Your task to perform on an android device: open app "HBO Max: Stream TV & Movies" (install if not already installed), go to login, and select forgot password Image 0: 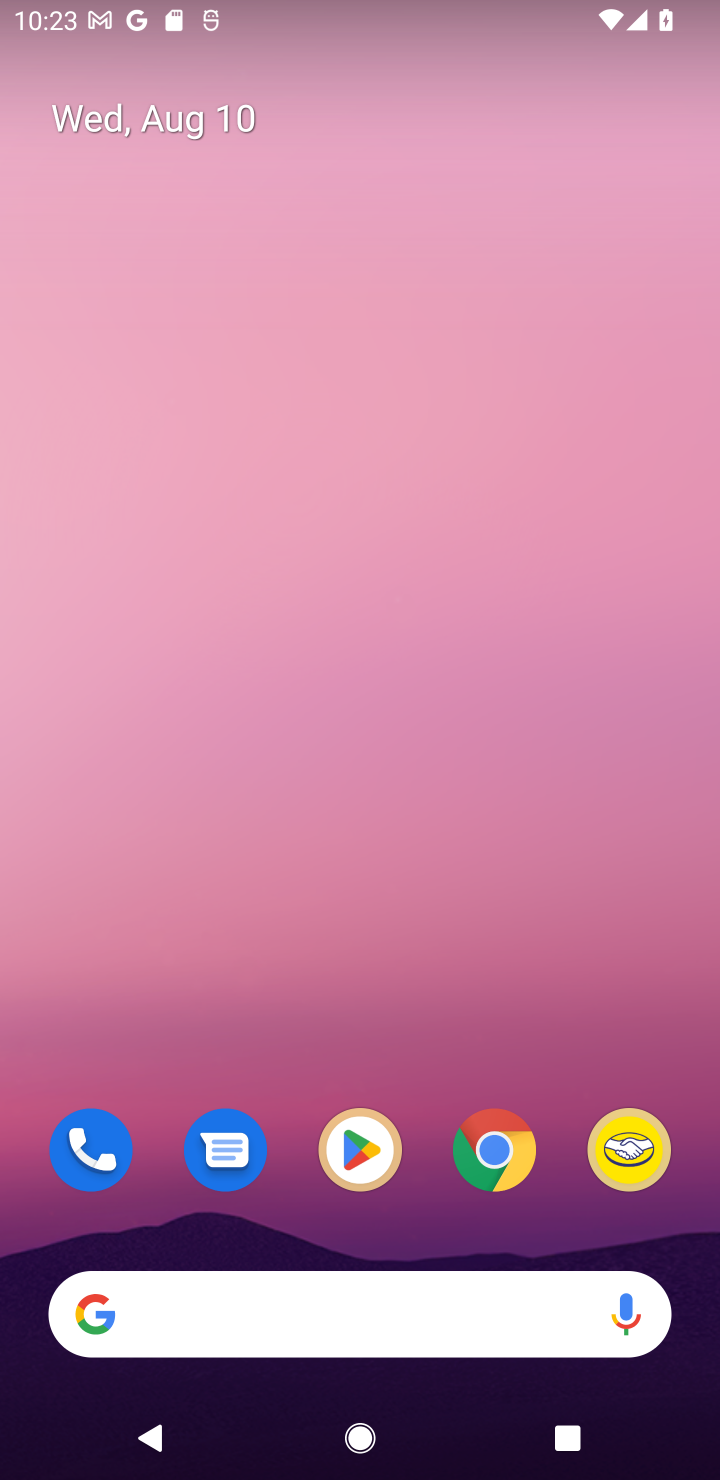
Step 0: click (366, 1136)
Your task to perform on an android device: open app "HBO Max: Stream TV & Movies" (install if not already installed), go to login, and select forgot password Image 1: 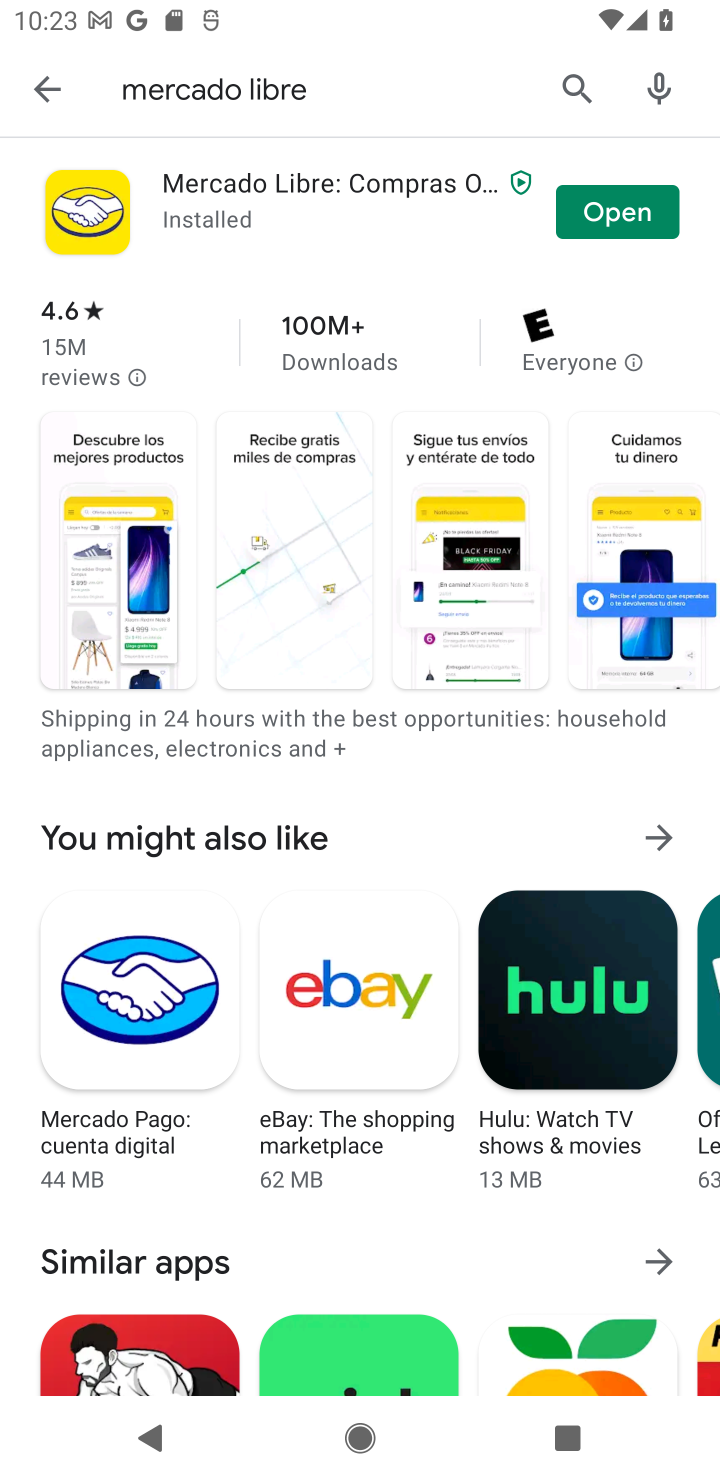
Step 1: click (570, 92)
Your task to perform on an android device: open app "HBO Max: Stream TV & Movies" (install if not already installed), go to login, and select forgot password Image 2: 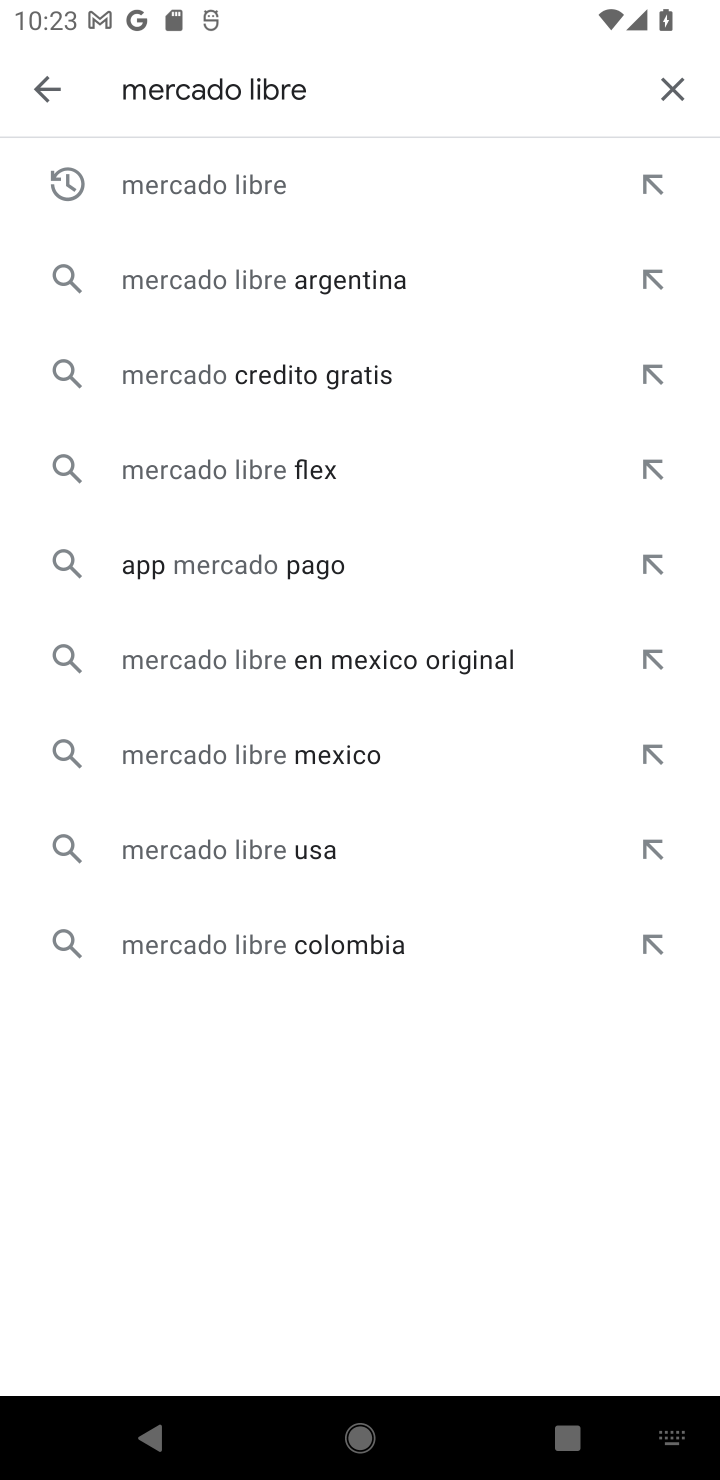
Step 2: click (664, 84)
Your task to perform on an android device: open app "HBO Max: Stream TV & Movies" (install if not already installed), go to login, and select forgot password Image 3: 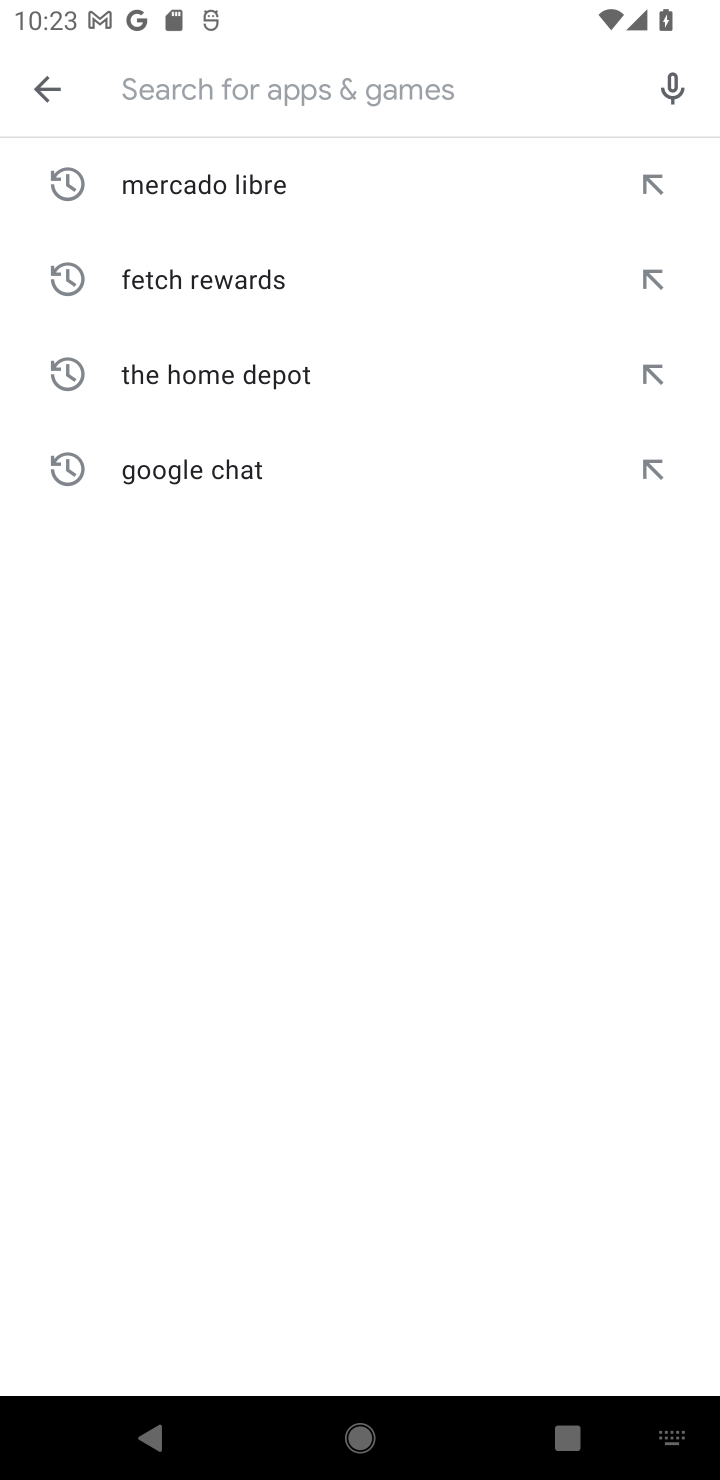
Step 3: type "HBO Max: Stream TV & Movies"
Your task to perform on an android device: open app "HBO Max: Stream TV & Movies" (install if not already installed), go to login, and select forgot password Image 4: 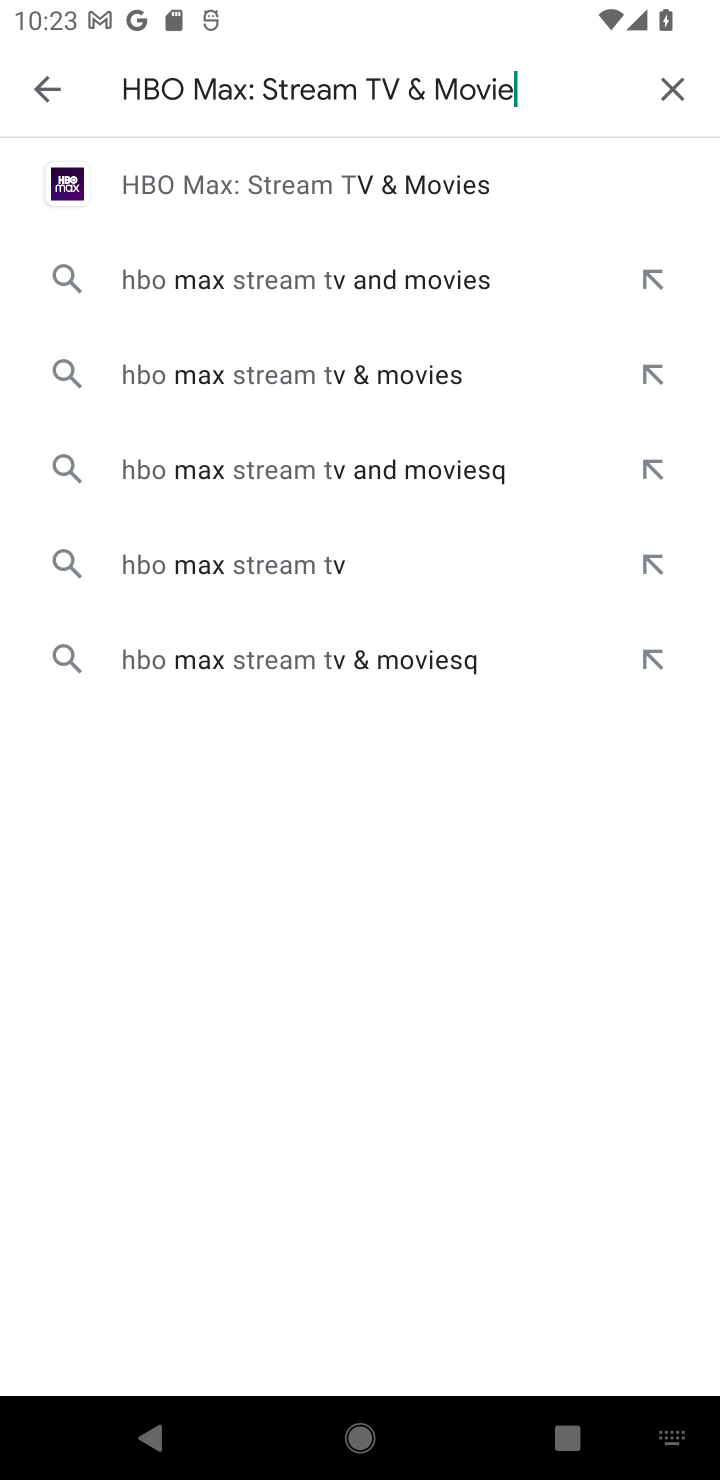
Step 4: type ""
Your task to perform on an android device: open app "HBO Max: Stream TV & Movies" (install if not already installed), go to login, and select forgot password Image 5: 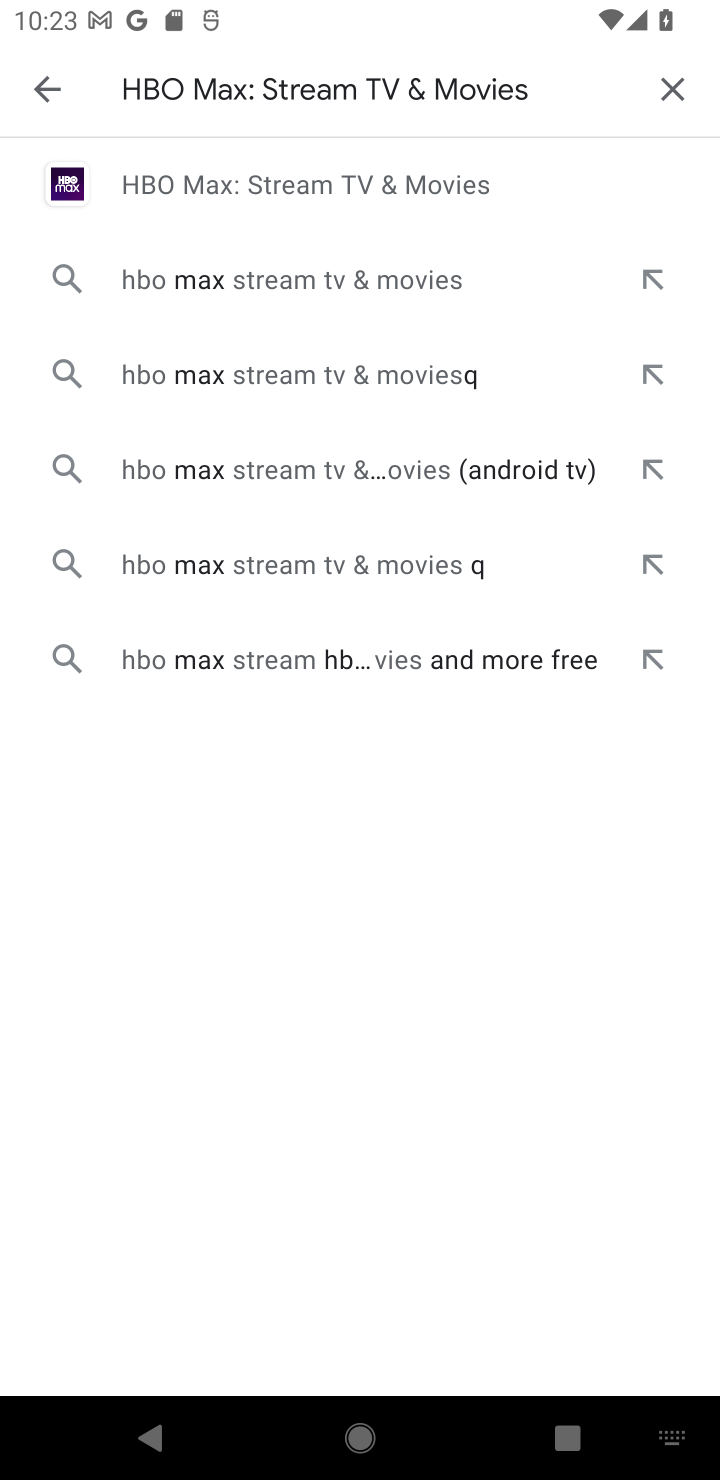
Step 5: click (297, 189)
Your task to perform on an android device: open app "HBO Max: Stream TV & Movies" (install if not already installed), go to login, and select forgot password Image 6: 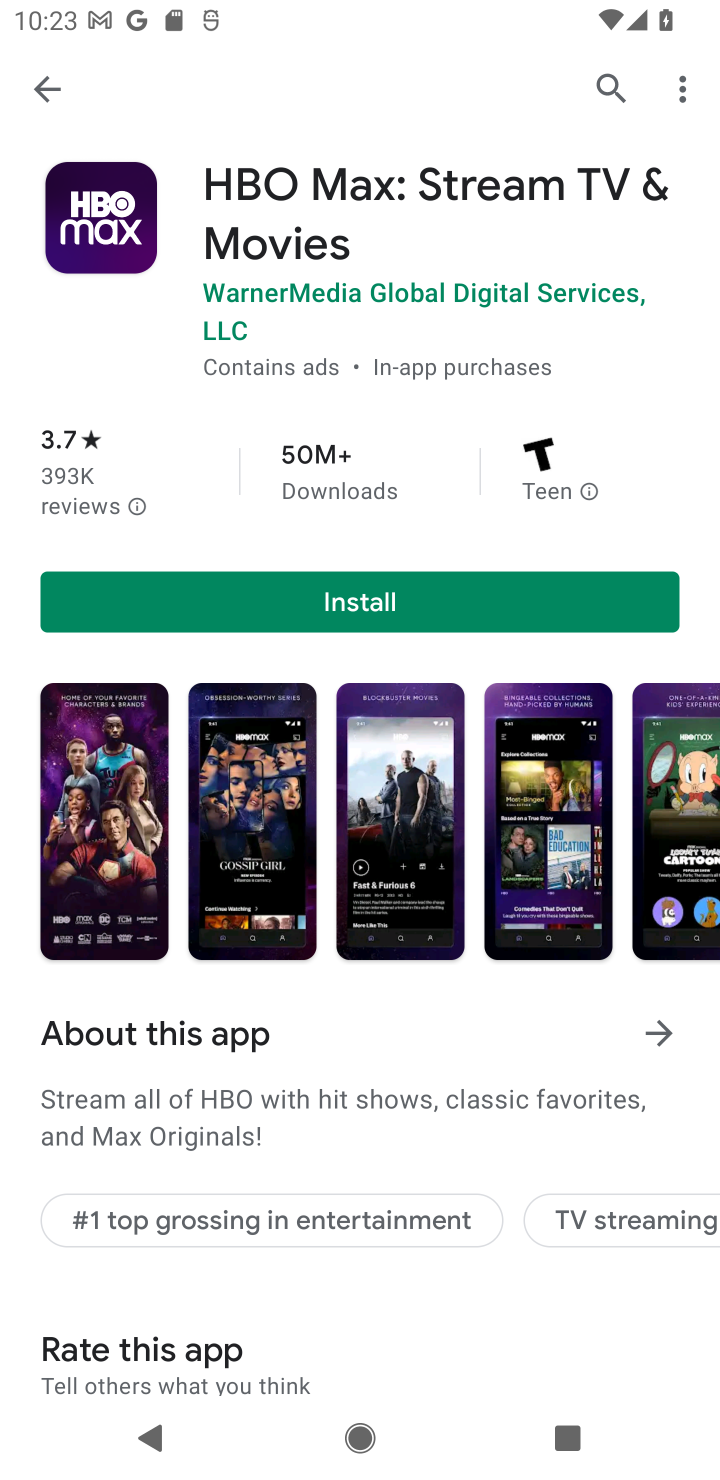
Step 6: click (282, 577)
Your task to perform on an android device: open app "HBO Max: Stream TV & Movies" (install if not already installed), go to login, and select forgot password Image 7: 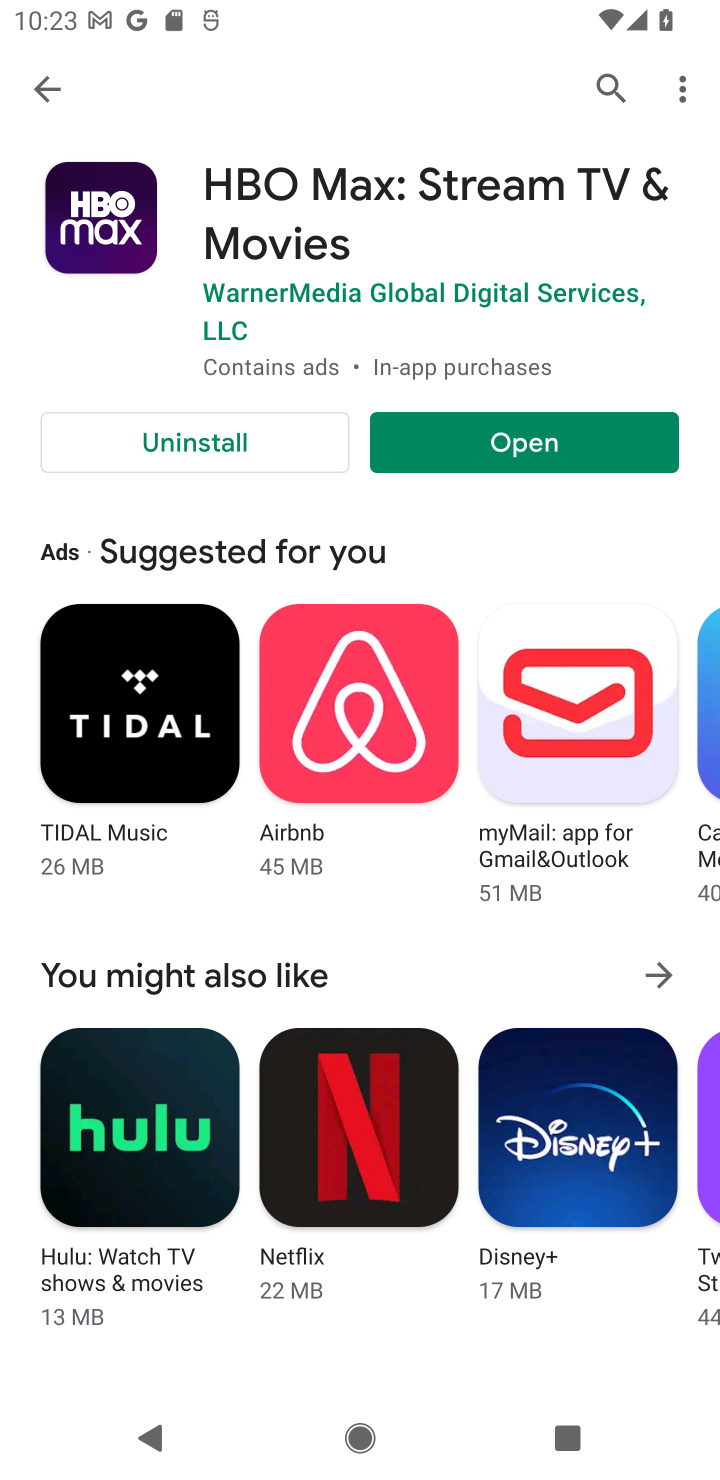
Step 7: click (509, 424)
Your task to perform on an android device: open app "HBO Max: Stream TV & Movies" (install if not already installed), go to login, and select forgot password Image 8: 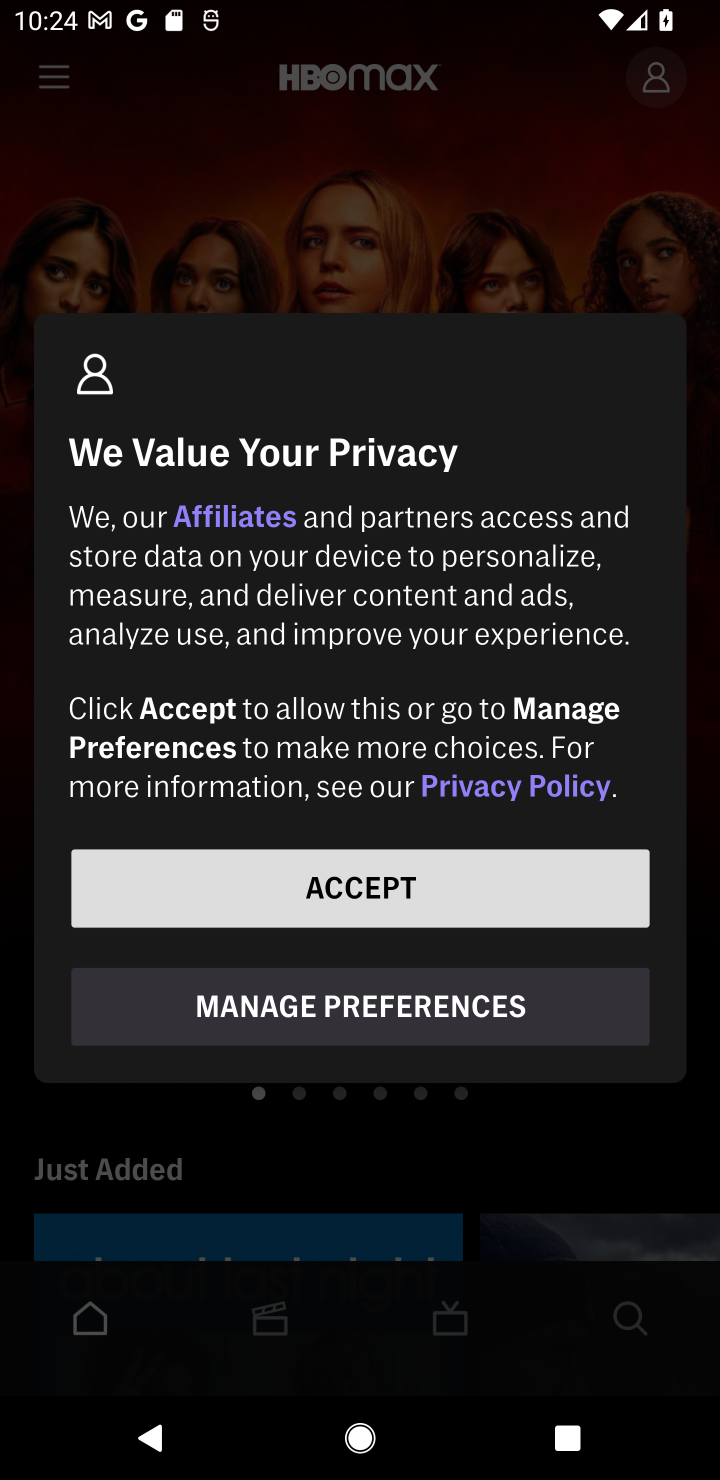
Step 8: task complete